Your task to perform on an android device: Open settings Image 0: 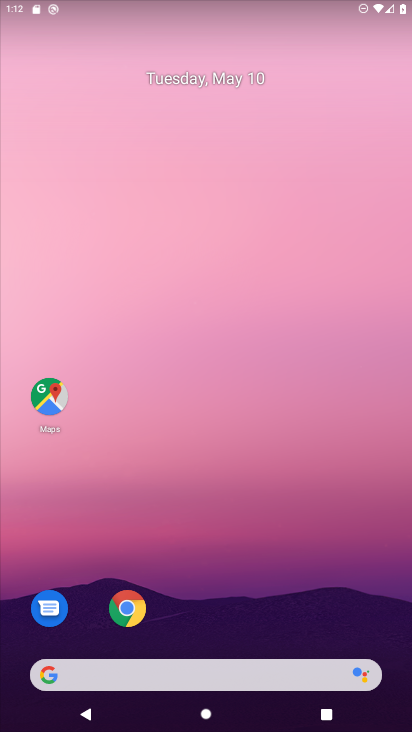
Step 0: press home button
Your task to perform on an android device: Open settings Image 1: 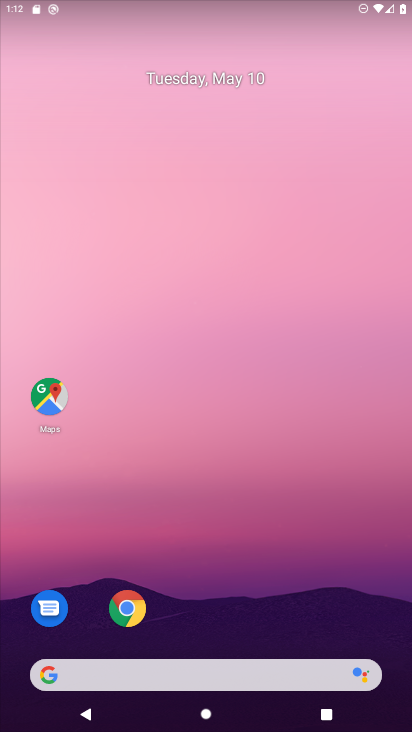
Step 1: drag from (365, 595) to (372, 51)
Your task to perform on an android device: Open settings Image 2: 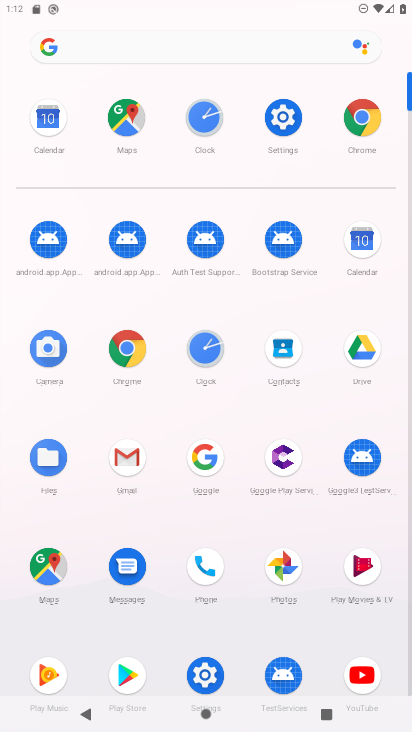
Step 2: click (291, 121)
Your task to perform on an android device: Open settings Image 3: 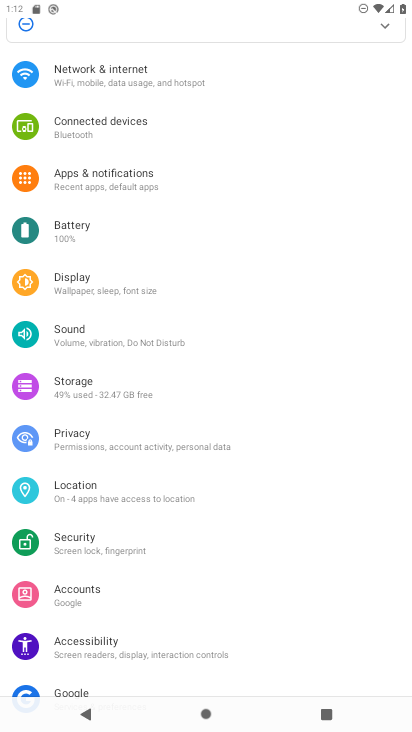
Step 3: task complete